Your task to perform on an android device: Search for vegetarian restaurants on Maps Image 0: 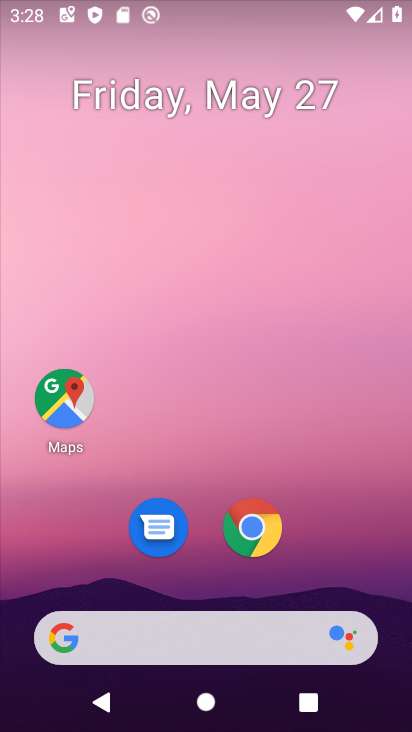
Step 0: click (72, 404)
Your task to perform on an android device: Search for vegetarian restaurants on Maps Image 1: 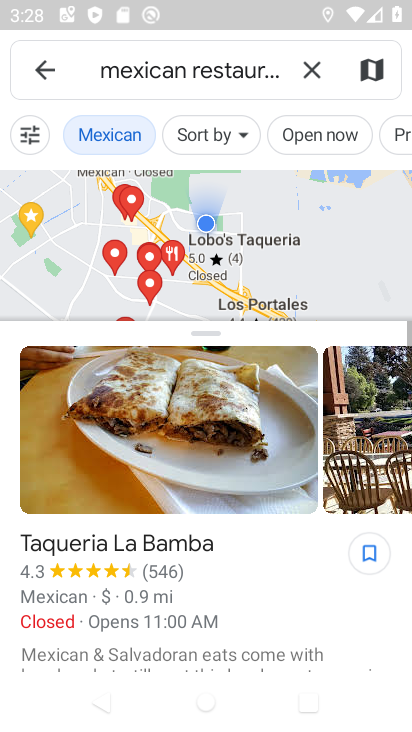
Step 1: click (46, 79)
Your task to perform on an android device: Search for vegetarian restaurants on Maps Image 2: 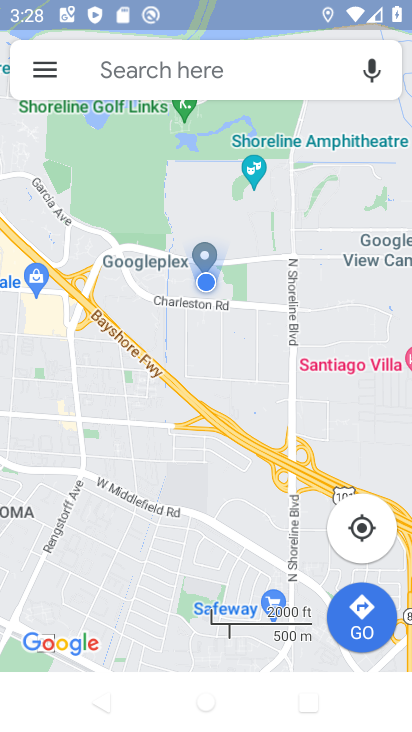
Step 2: click (156, 68)
Your task to perform on an android device: Search for vegetarian restaurants on Maps Image 3: 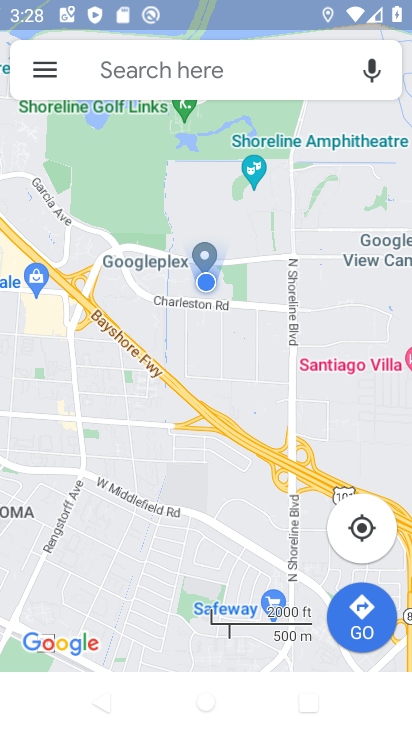
Step 3: click (156, 68)
Your task to perform on an android device: Search for vegetarian restaurants on Maps Image 4: 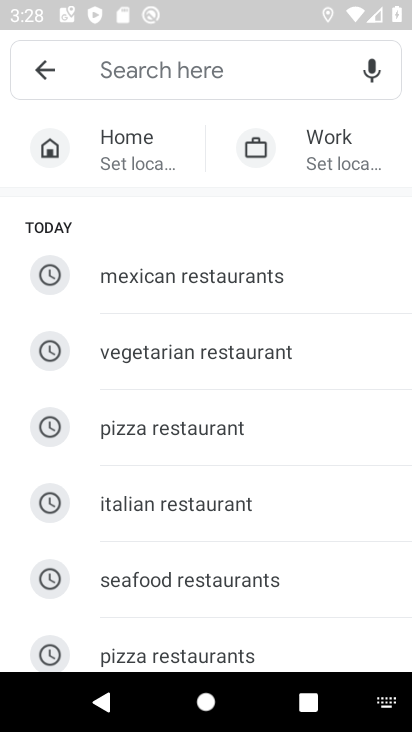
Step 4: type "vegetarian restaurants "
Your task to perform on an android device: Search for vegetarian restaurants on Maps Image 5: 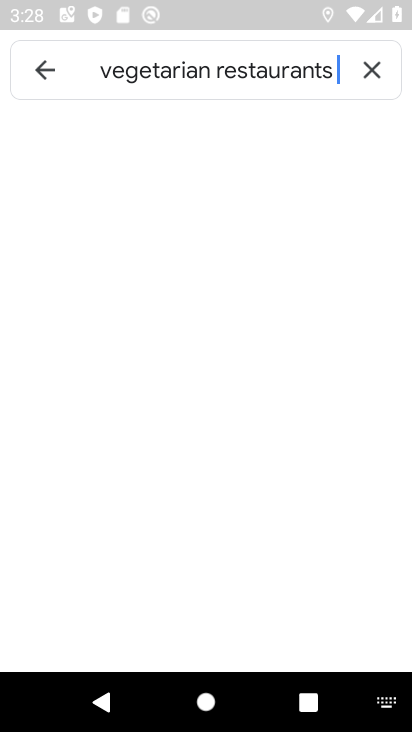
Step 5: click (179, 124)
Your task to perform on an android device: Search for vegetarian restaurants on Maps Image 6: 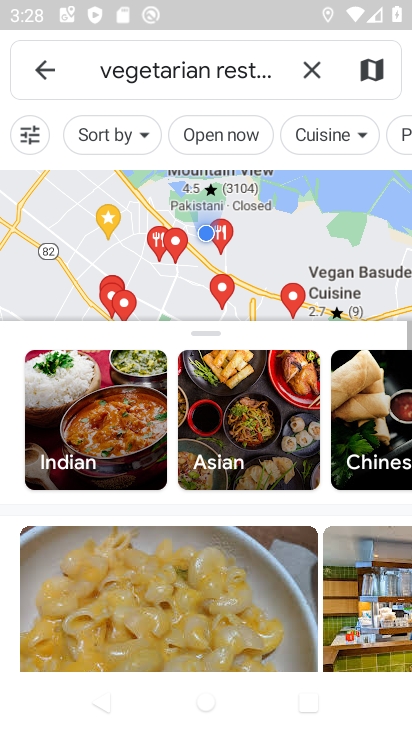
Step 6: task complete